Your task to perform on an android device: toggle airplane mode Image 0: 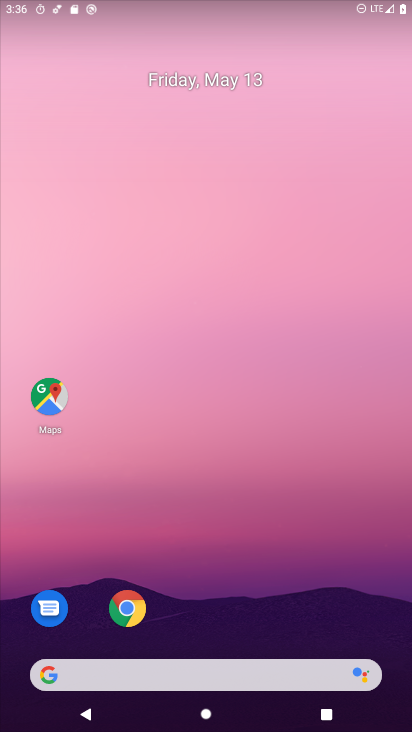
Step 0: drag from (306, 620) to (306, 304)
Your task to perform on an android device: toggle airplane mode Image 1: 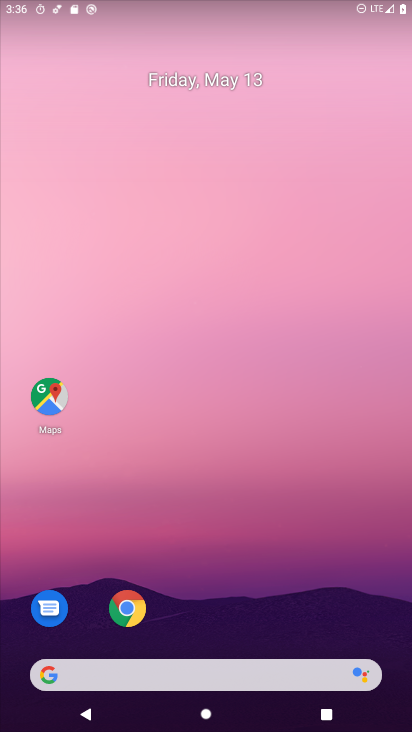
Step 1: drag from (293, 0) to (301, 367)
Your task to perform on an android device: toggle airplane mode Image 2: 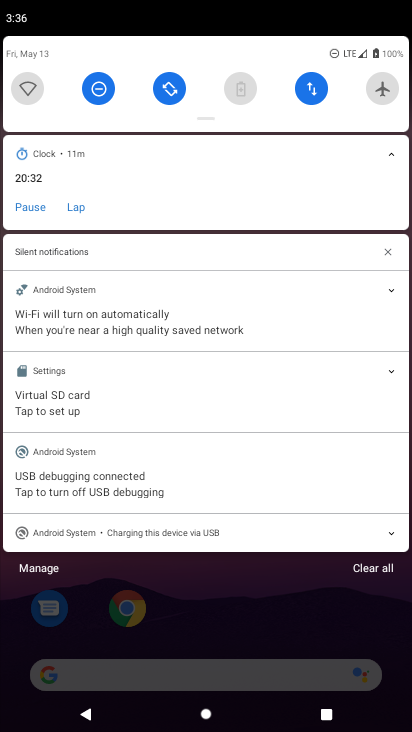
Step 2: drag from (279, 105) to (276, 491)
Your task to perform on an android device: toggle airplane mode Image 3: 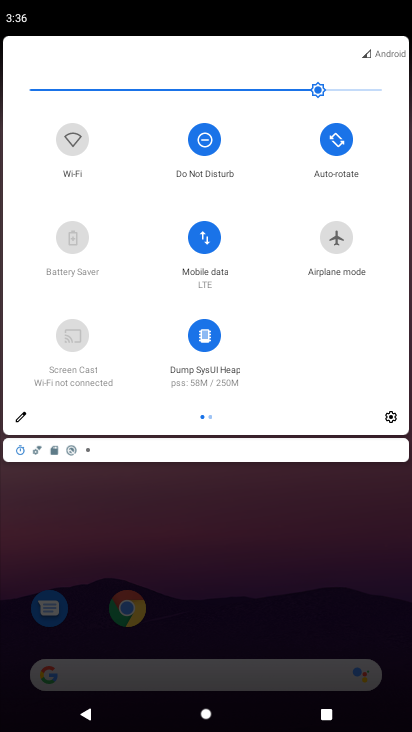
Step 3: click (333, 239)
Your task to perform on an android device: toggle airplane mode Image 4: 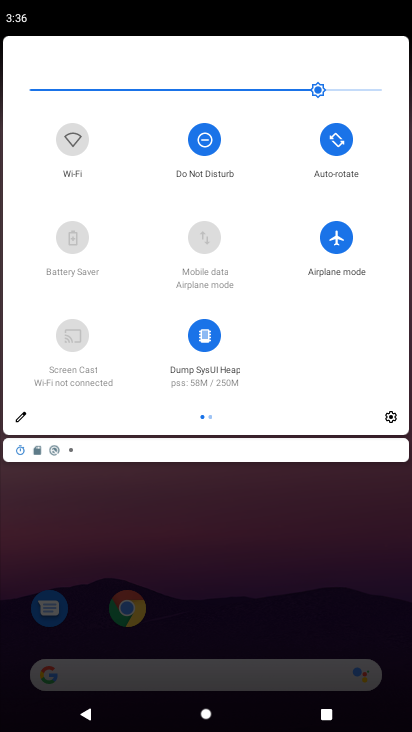
Step 4: task complete